Your task to perform on an android device: toggle wifi Image 0: 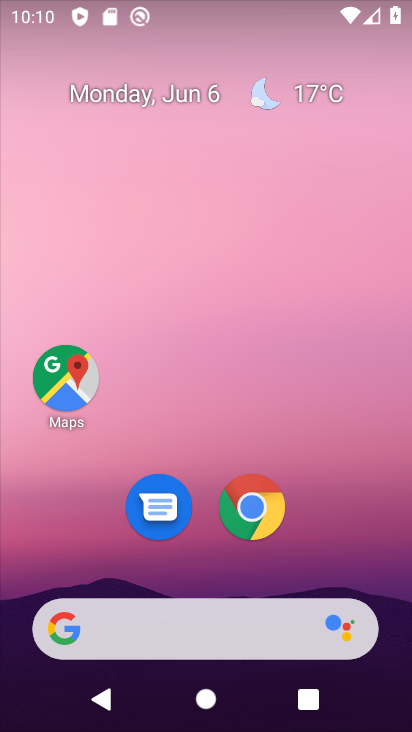
Step 0: drag from (175, 16) to (74, 659)
Your task to perform on an android device: toggle wifi Image 1: 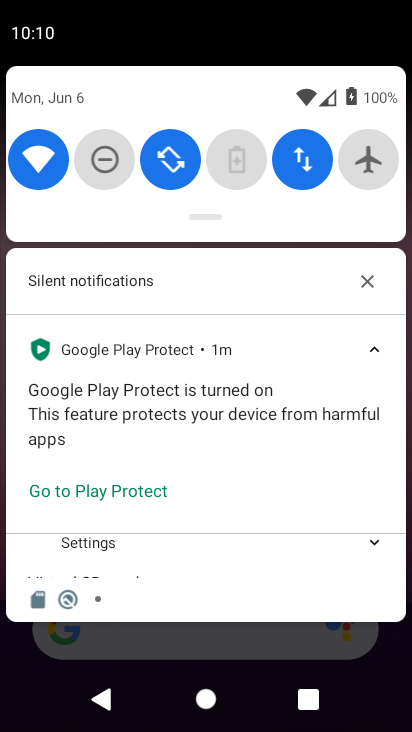
Step 1: click (35, 165)
Your task to perform on an android device: toggle wifi Image 2: 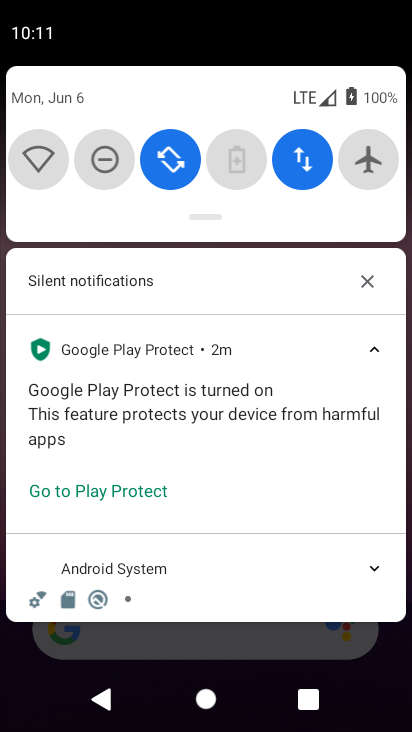
Step 2: task complete